Your task to perform on an android device: Do I have any events tomorrow? Image 0: 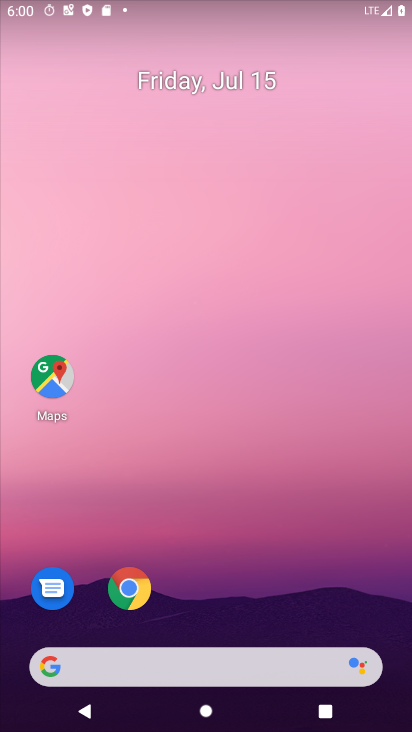
Step 0: drag from (251, 642) to (145, 26)
Your task to perform on an android device: Do I have any events tomorrow? Image 1: 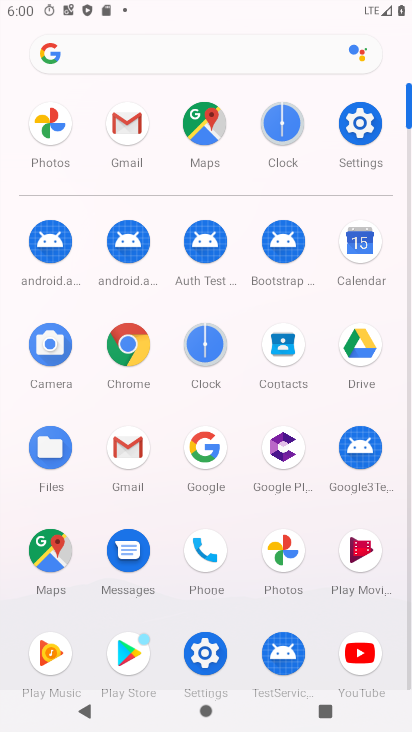
Step 1: click (358, 247)
Your task to perform on an android device: Do I have any events tomorrow? Image 2: 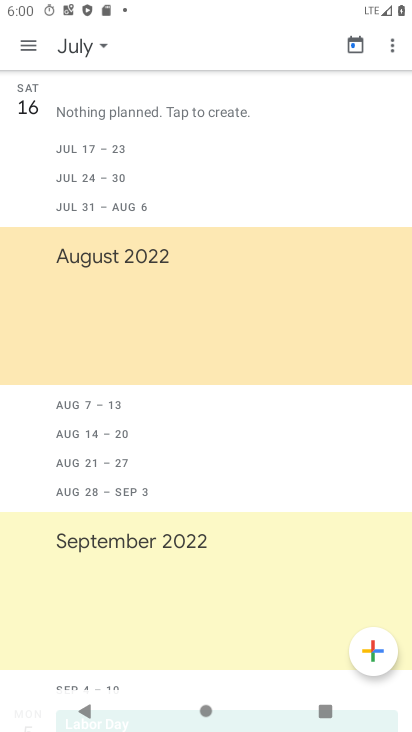
Step 2: click (100, 37)
Your task to perform on an android device: Do I have any events tomorrow? Image 3: 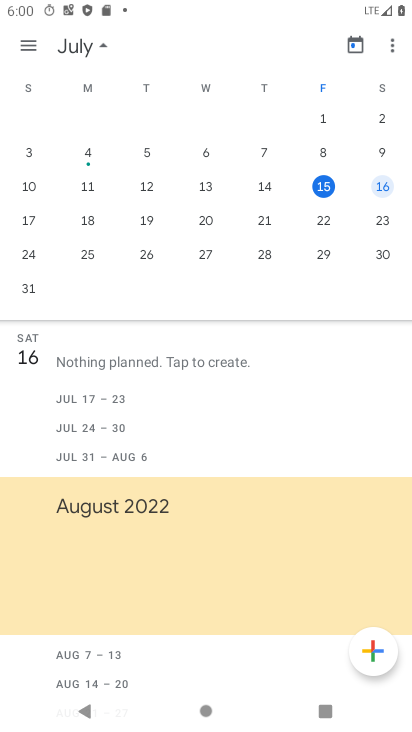
Step 3: click (373, 186)
Your task to perform on an android device: Do I have any events tomorrow? Image 4: 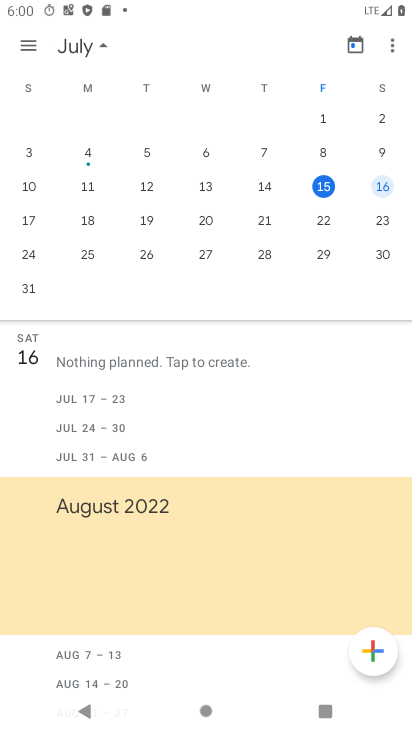
Step 4: task complete